Your task to perform on an android device: all mails in gmail Image 0: 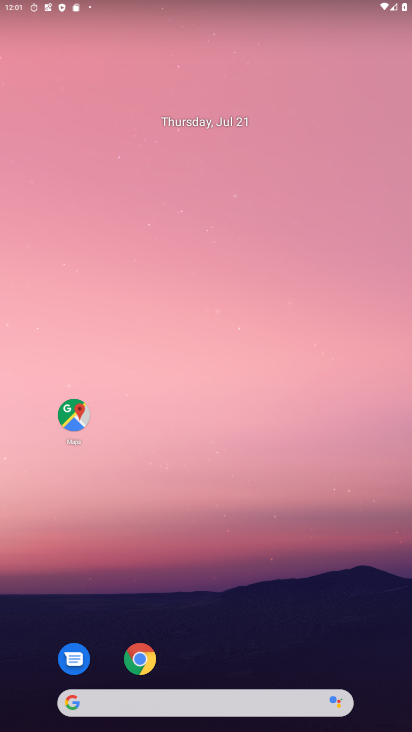
Step 0: click (256, 33)
Your task to perform on an android device: all mails in gmail Image 1: 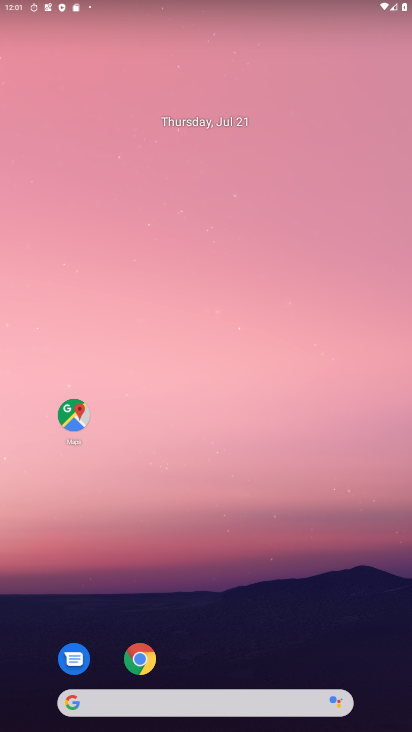
Step 1: drag from (309, 526) to (113, 28)
Your task to perform on an android device: all mails in gmail Image 2: 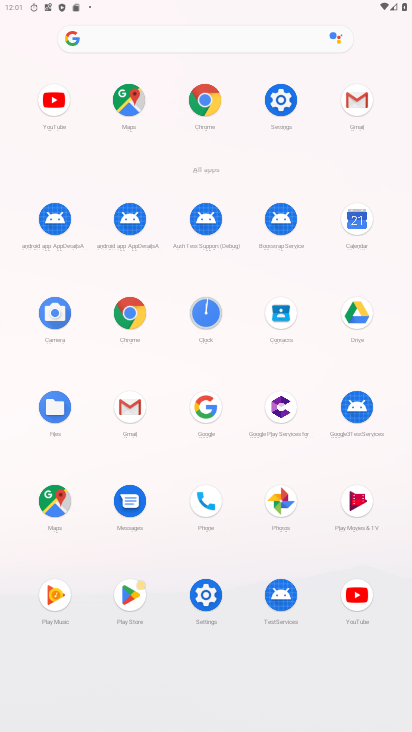
Step 2: click (363, 98)
Your task to perform on an android device: all mails in gmail Image 3: 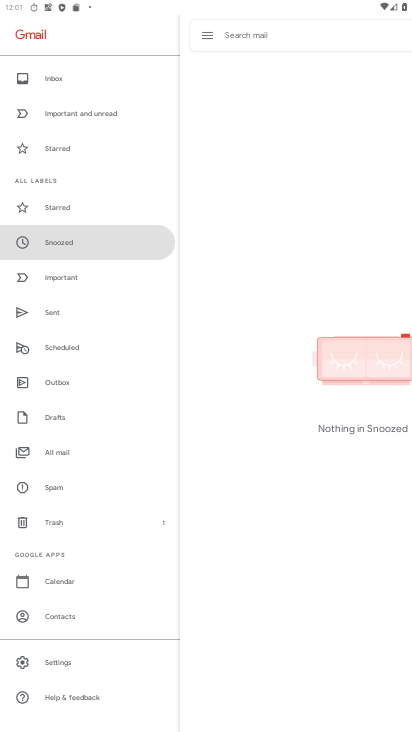
Step 3: click (69, 459)
Your task to perform on an android device: all mails in gmail Image 4: 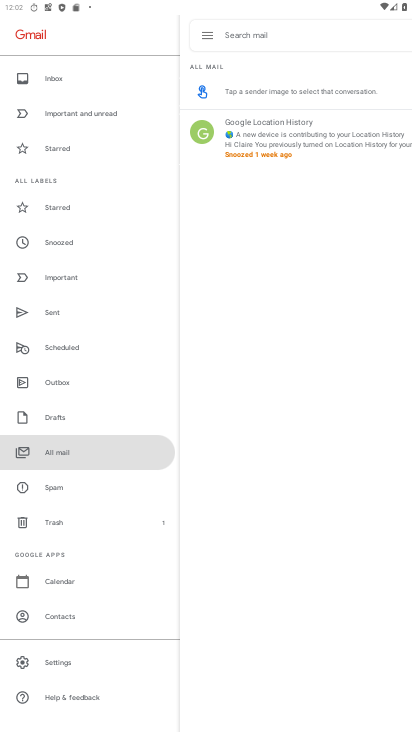
Step 4: task complete